Your task to perform on an android device: What's on my calendar today? Image 0: 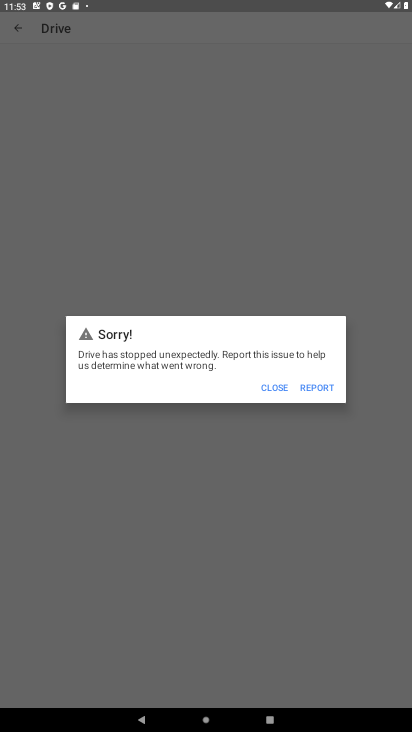
Step 0: press home button
Your task to perform on an android device: What's on my calendar today? Image 1: 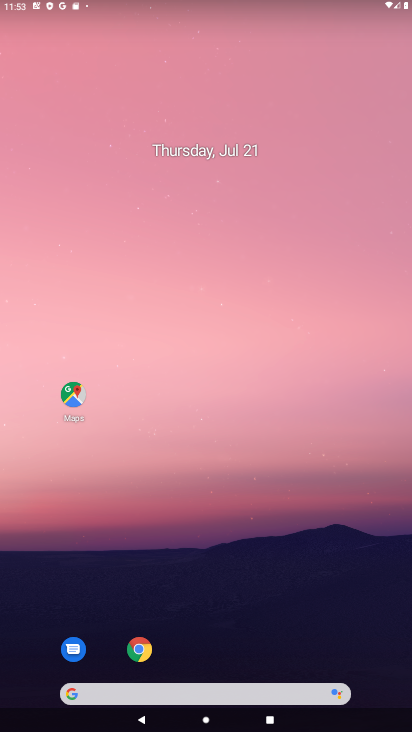
Step 1: drag from (239, 720) to (273, 276)
Your task to perform on an android device: What's on my calendar today? Image 2: 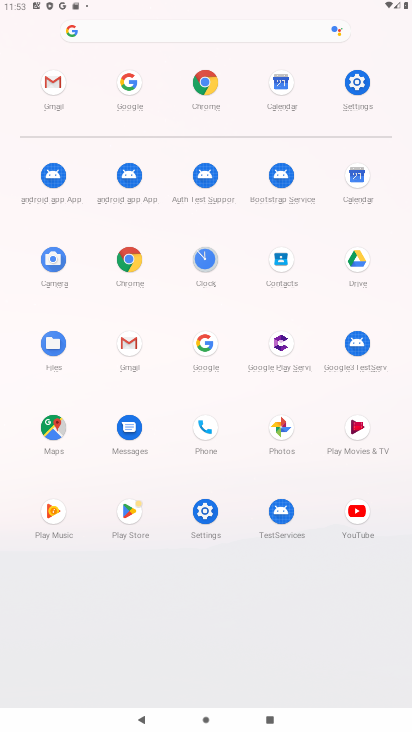
Step 2: click (358, 171)
Your task to perform on an android device: What's on my calendar today? Image 3: 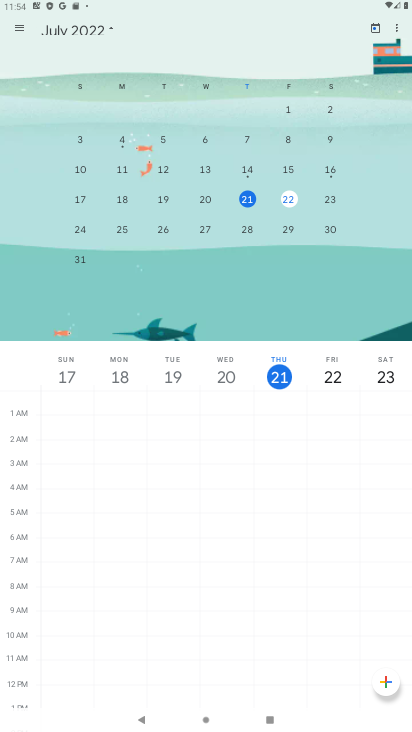
Step 3: click (282, 372)
Your task to perform on an android device: What's on my calendar today? Image 4: 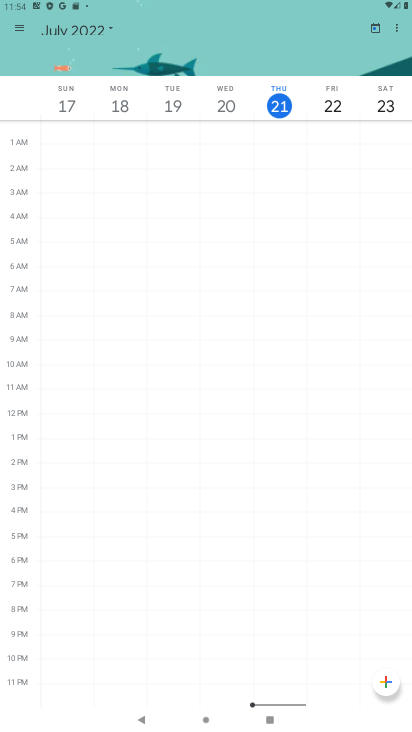
Step 4: task complete